Your task to perform on an android device: Open the calendar app, open the side menu, and click the "Day" option Image 0: 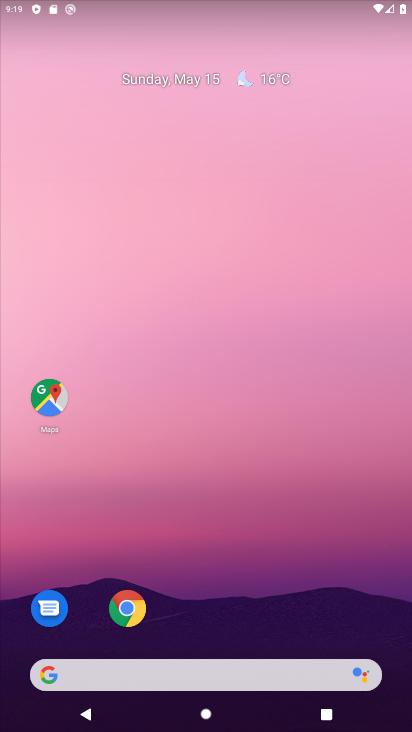
Step 0: drag from (196, 433) to (194, 14)
Your task to perform on an android device: Open the calendar app, open the side menu, and click the "Day" option Image 1: 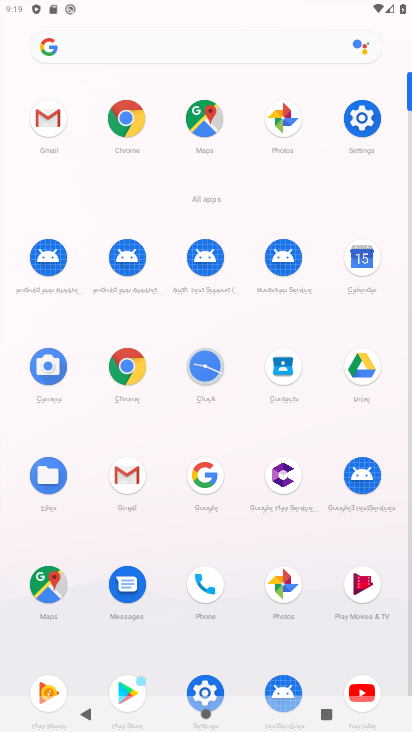
Step 1: click (353, 269)
Your task to perform on an android device: Open the calendar app, open the side menu, and click the "Day" option Image 2: 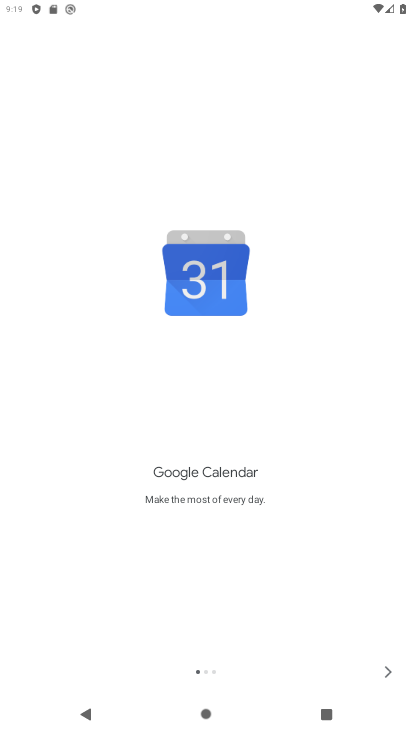
Step 2: click (392, 671)
Your task to perform on an android device: Open the calendar app, open the side menu, and click the "Day" option Image 3: 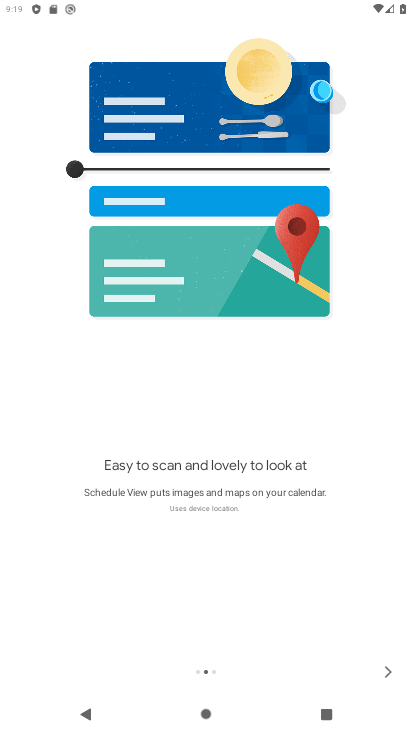
Step 3: click (388, 671)
Your task to perform on an android device: Open the calendar app, open the side menu, and click the "Day" option Image 4: 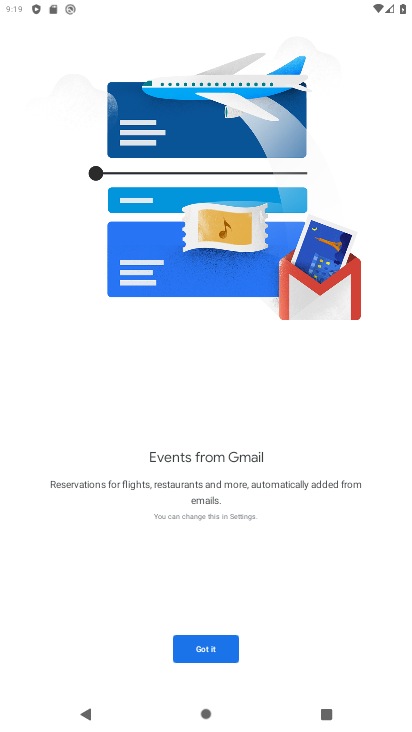
Step 4: click (152, 654)
Your task to perform on an android device: Open the calendar app, open the side menu, and click the "Day" option Image 5: 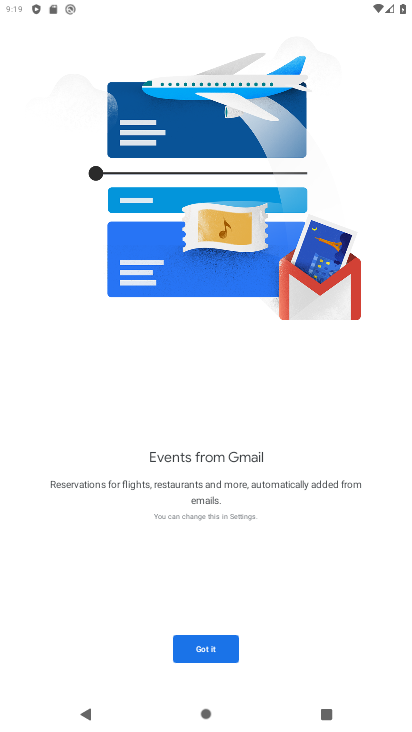
Step 5: click (179, 649)
Your task to perform on an android device: Open the calendar app, open the side menu, and click the "Day" option Image 6: 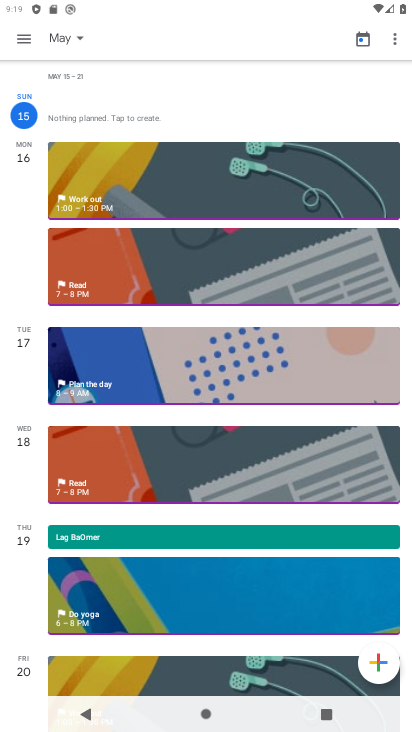
Step 6: click (14, 46)
Your task to perform on an android device: Open the calendar app, open the side menu, and click the "Day" option Image 7: 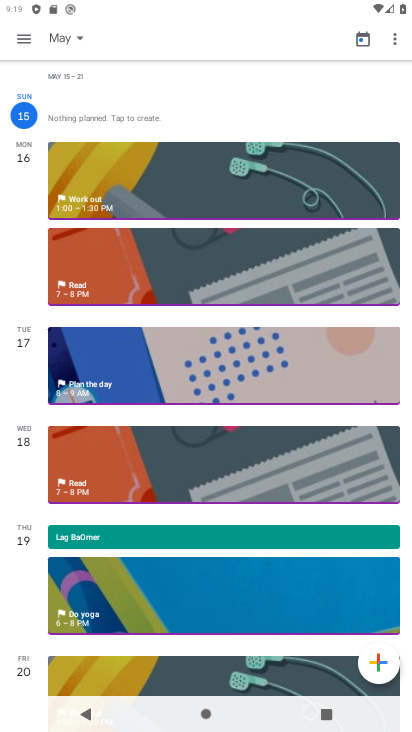
Step 7: click (25, 40)
Your task to perform on an android device: Open the calendar app, open the side menu, and click the "Day" option Image 8: 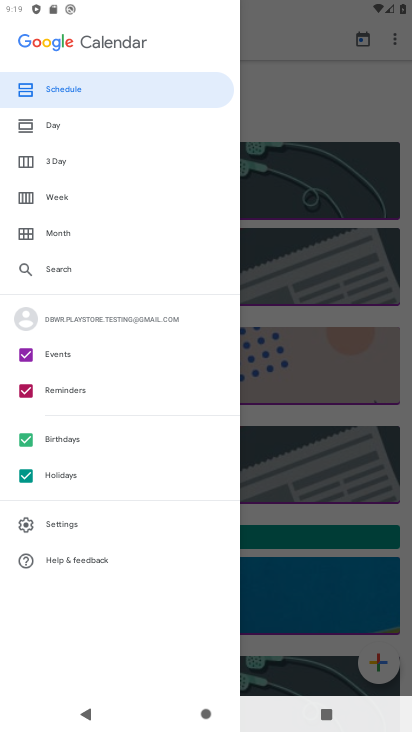
Step 8: click (51, 123)
Your task to perform on an android device: Open the calendar app, open the side menu, and click the "Day" option Image 9: 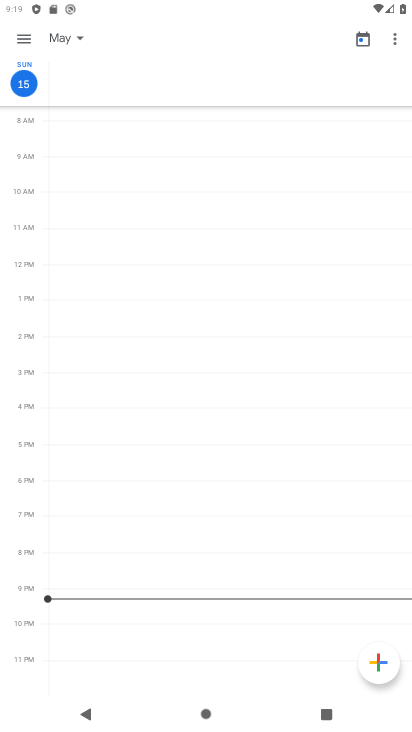
Step 9: task complete